Your task to perform on an android device: Play the last video I watched on Youtube Image 0: 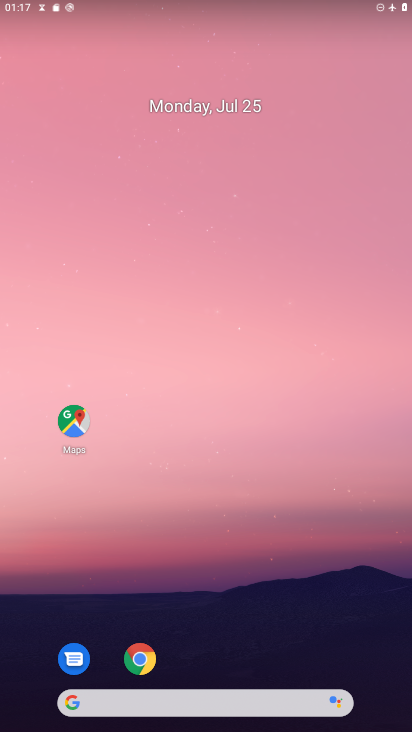
Step 0: drag from (178, 654) to (254, 53)
Your task to perform on an android device: Play the last video I watched on Youtube Image 1: 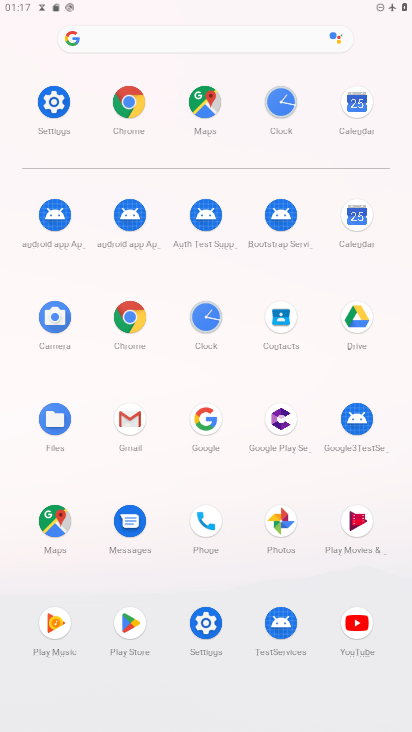
Step 1: click (366, 611)
Your task to perform on an android device: Play the last video I watched on Youtube Image 2: 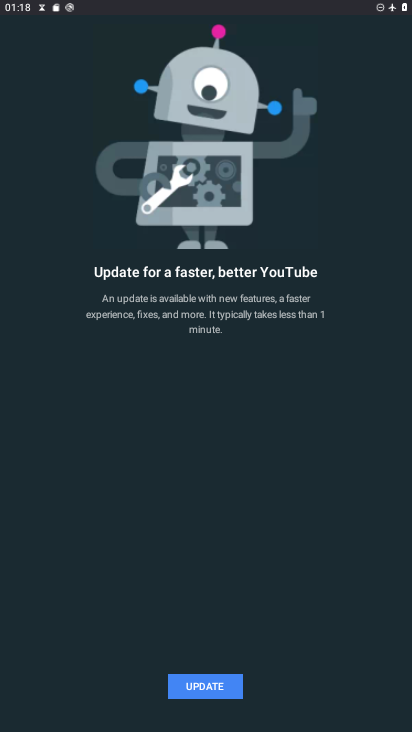
Step 2: task complete